Your task to perform on an android device: Go to privacy settings Image 0: 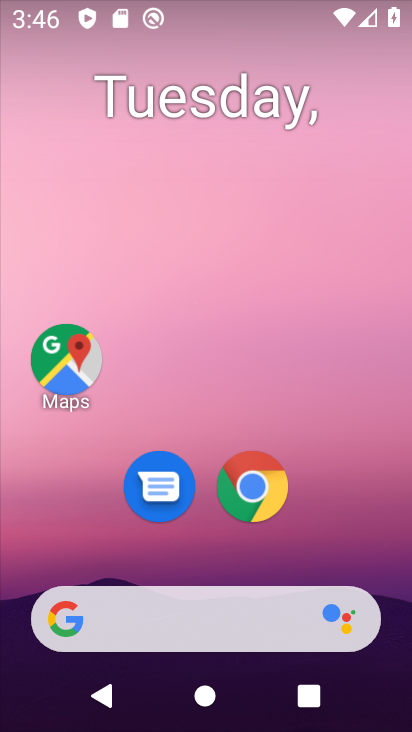
Step 0: drag from (279, 347) to (249, 26)
Your task to perform on an android device: Go to privacy settings Image 1: 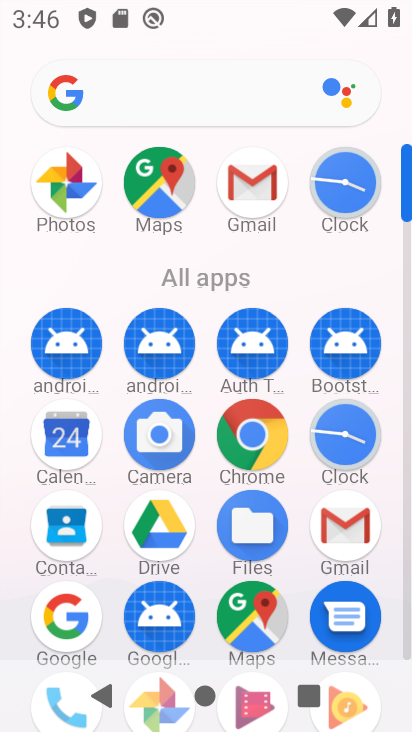
Step 1: drag from (308, 640) to (303, 251)
Your task to perform on an android device: Go to privacy settings Image 2: 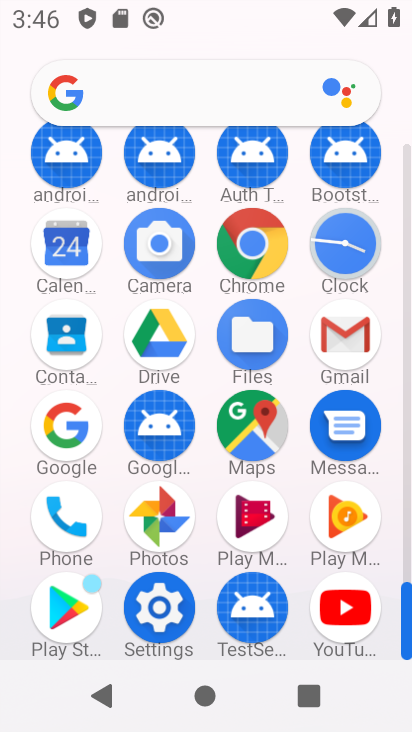
Step 2: click (145, 606)
Your task to perform on an android device: Go to privacy settings Image 3: 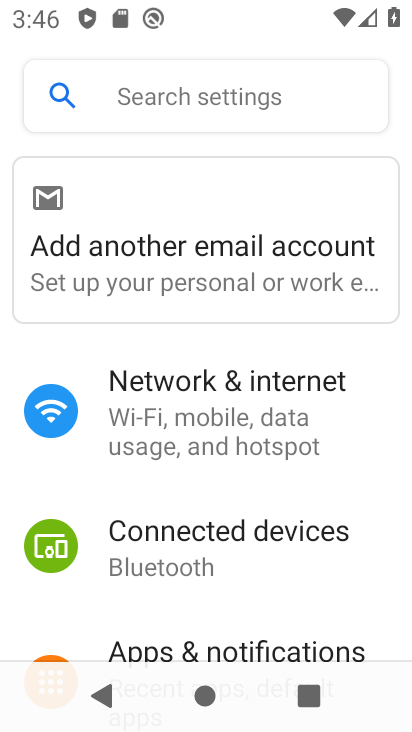
Step 3: drag from (266, 615) to (247, 286)
Your task to perform on an android device: Go to privacy settings Image 4: 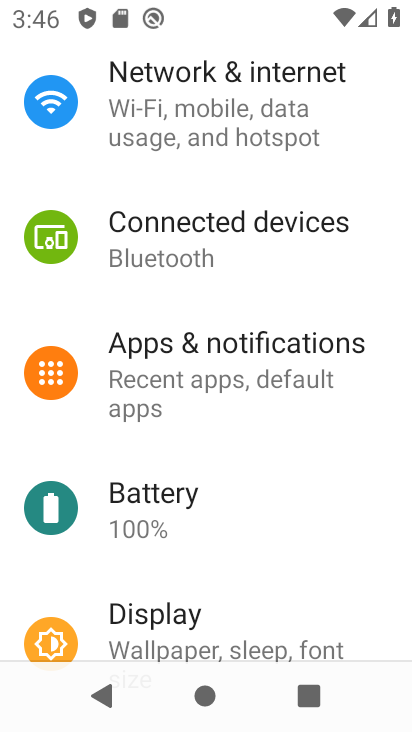
Step 4: drag from (289, 495) to (286, 229)
Your task to perform on an android device: Go to privacy settings Image 5: 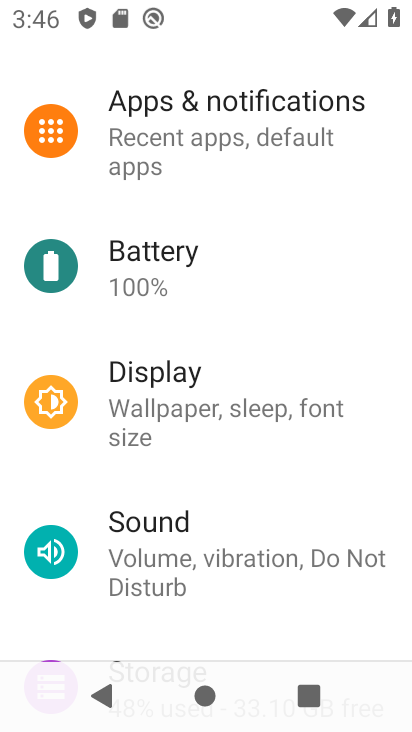
Step 5: drag from (232, 610) to (222, 281)
Your task to perform on an android device: Go to privacy settings Image 6: 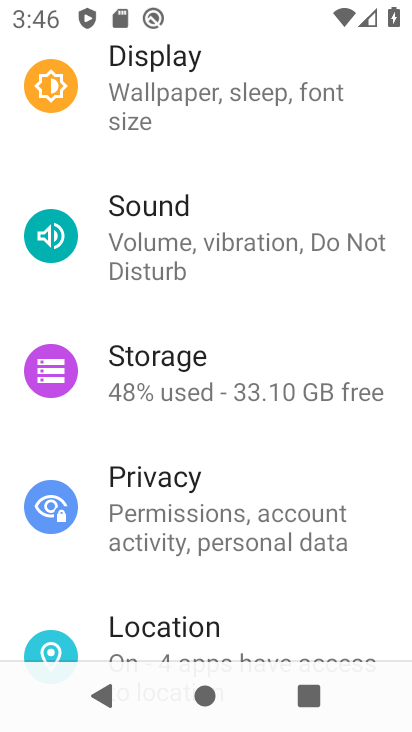
Step 6: drag from (184, 531) to (205, 242)
Your task to perform on an android device: Go to privacy settings Image 7: 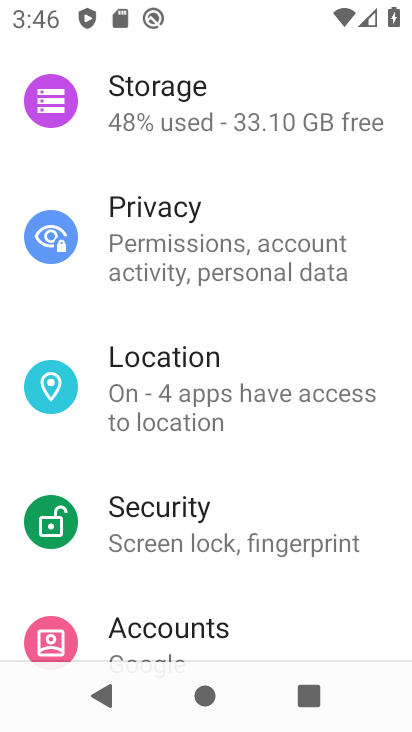
Step 7: drag from (178, 566) to (207, 271)
Your task to perform on an android device: Go to privacy settings Image 8: 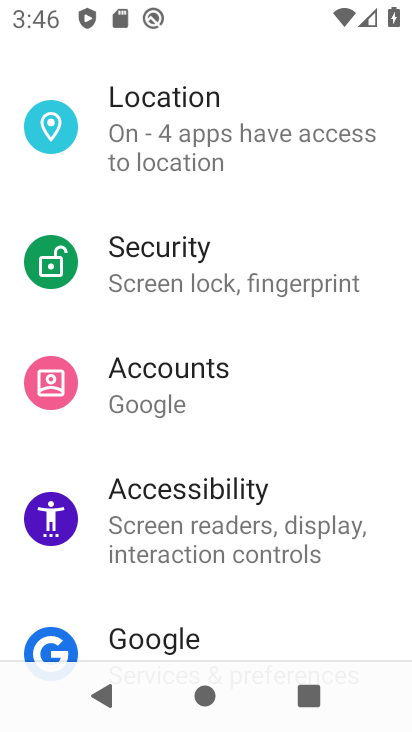
Step 8: drag from (214, 515) to (199, 285)
Your task to perform on an android device: Go to privacy settings Image 9: 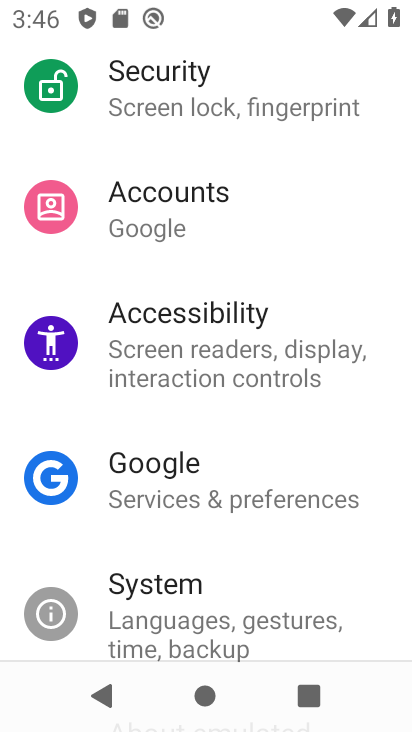
Step 9: drag from (213, 274) to (278, 585)
Your task to perform on an android device: Go to privacy settings Image 10: 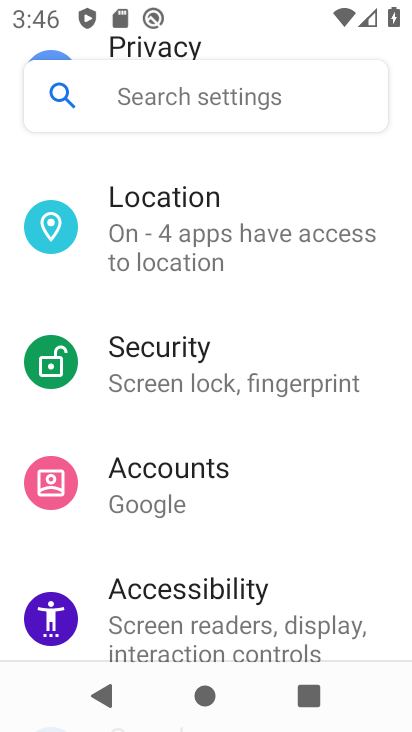
Step 10: drag from (213, 537) to (200, 193)
Your task to perform on an android device: Go to privacy settings Image 11: 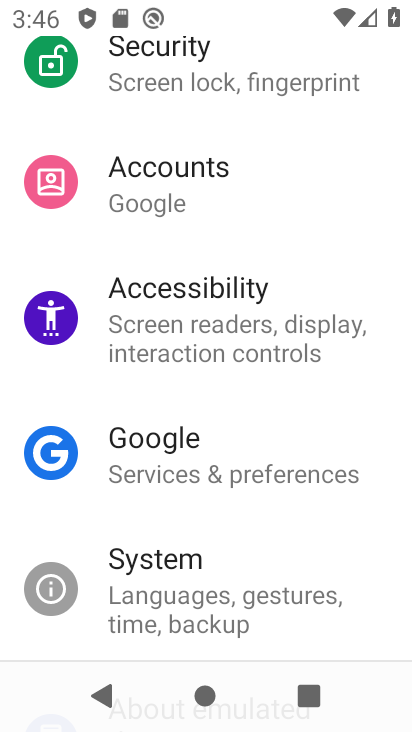
Step 11: drag from (213, 564) to (206, 214)
Your task to perform on an android device: Go to privacy settings Image 12: 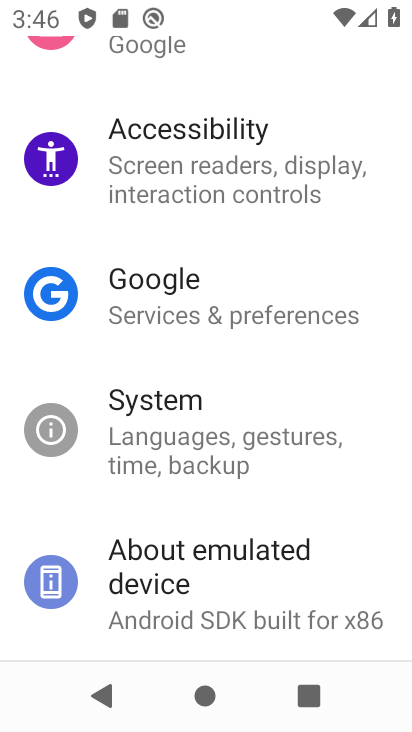
Step 12: drag from (198, 533) to (204, 279)
Your task to perform on an android device: Go to privacy settings Image 13: 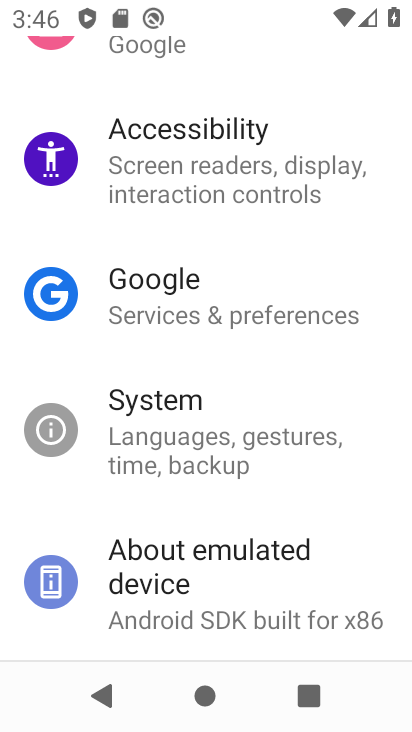
Step 13: click (185, 572)
Your task to perform on an android device: Go to privacy settings Image 14: 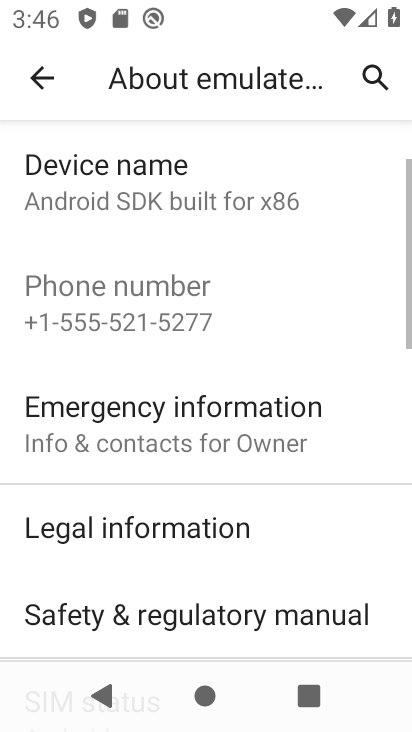
Step 14: drag from (172, 573) to (156, 230)
Your task to perform on an android device: Go to privacy settings Image 15: 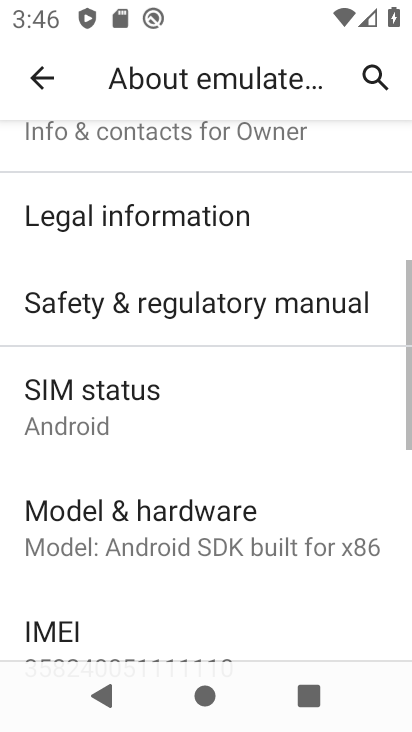
Step 15: drag from (165, 553) to (159, 324)
Your task to perform on an android device: Go to privacy settings Image 16: 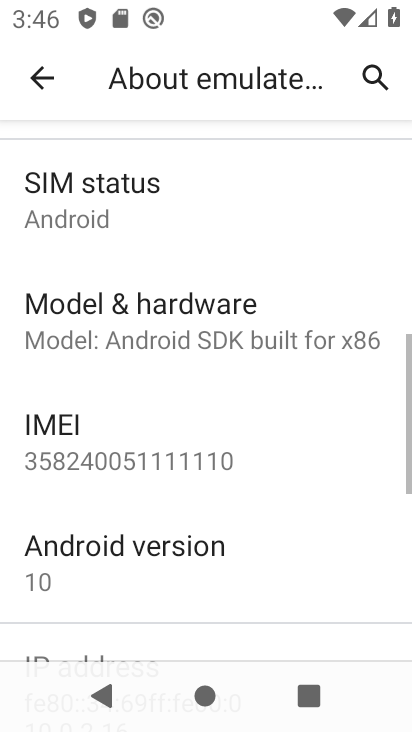
Step 16: drag from (172, 471) to (178, 218)
Your task to perform on an android device: Go to privacy settings Image 17: 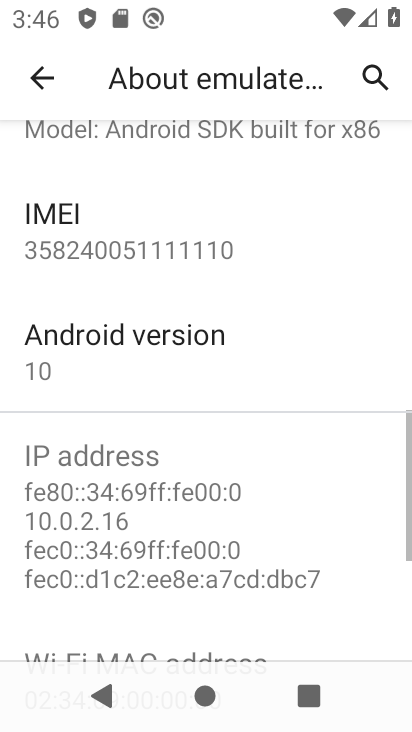
Step 17: drag from (143, 600) to (128, 213)
Your task to perform on an android device: Go to privacy settings Image 18: 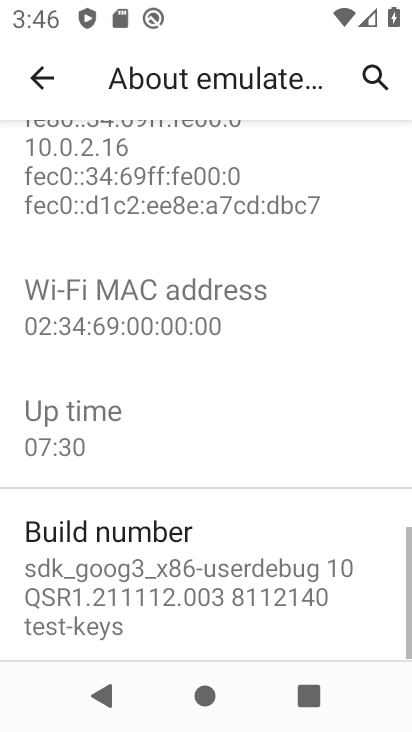
Step 18: drag from (200, 473) to (203, 168)
Your task to perform on an android device: Go to privacy settings Image 19: 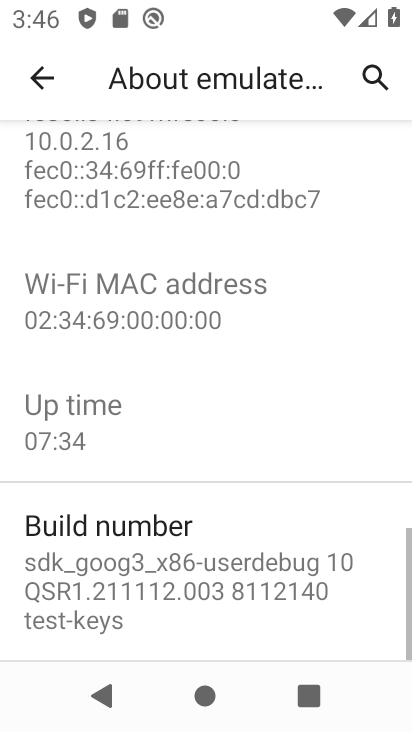
Step 19: press back button
Your task to perform on an android device: Go to privacy settings Image 20: 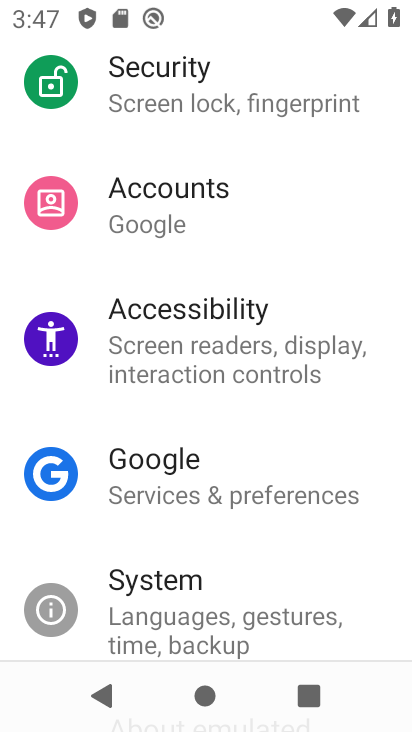
Step 20: click (225, 340)
Your task to perform on an android device: Go to privacy settings Image 21: 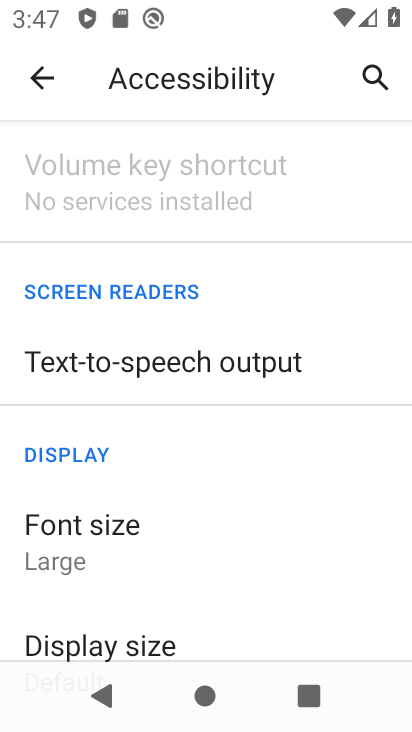
Step 21: task complete